Your task to perform on an android device: find which apps use the phone's location Image 0: 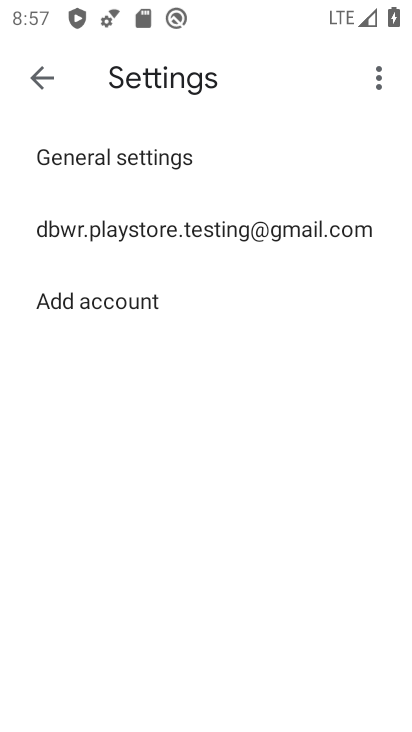
Step 0: press home button
Your task to perform on an android device: find which apps use the phone's location Image 1: 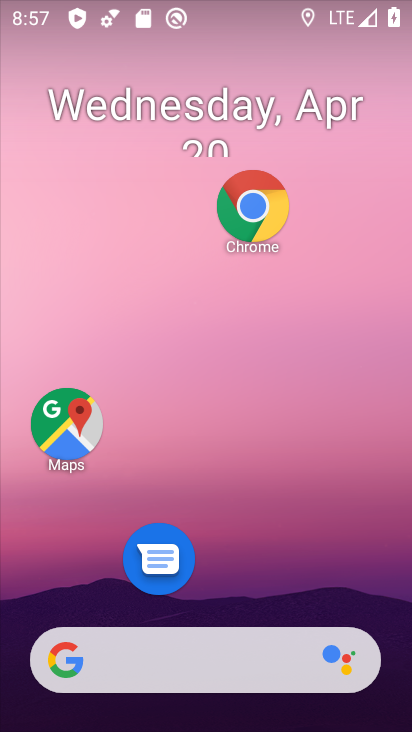
Step 1: drag from (253, 541) to (254, 215)
Your task to perform on an android device: find which apps use the phone's location Image 2: 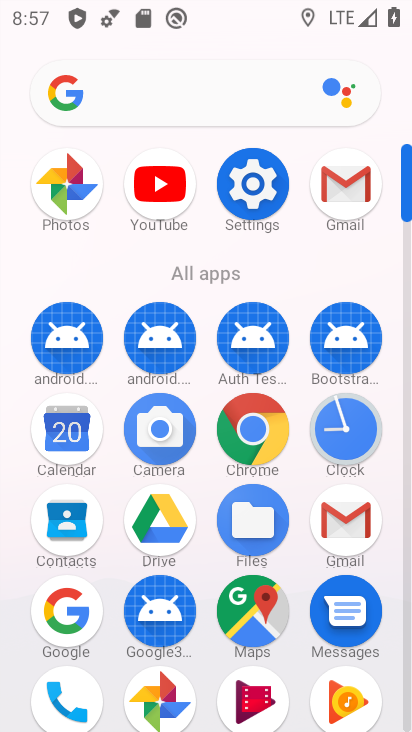
Step 2: click (239, 193)
Your task to perform on an android device: find which apps use the phone's location Image 3: 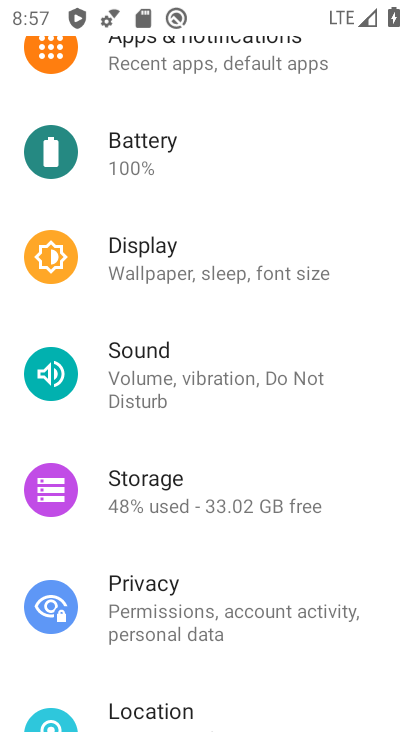
Step 3: click (172, 715)
Your task to perform on an android device: find which apps use the phone's location Image 4: 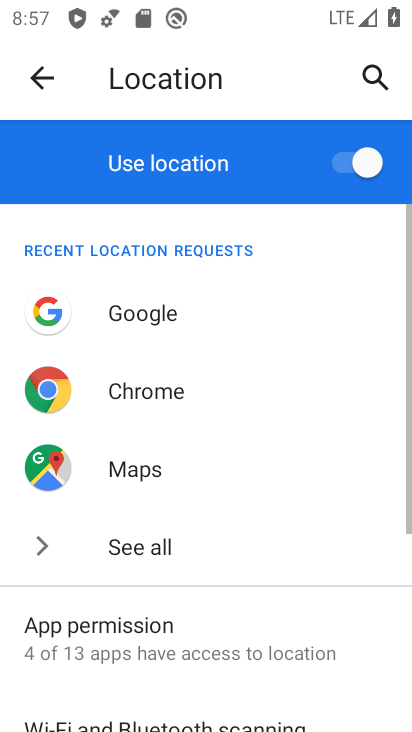
Step 4: click (173, 310)
Your task to perform on an android device: find which apps use the phone's location Image 5: 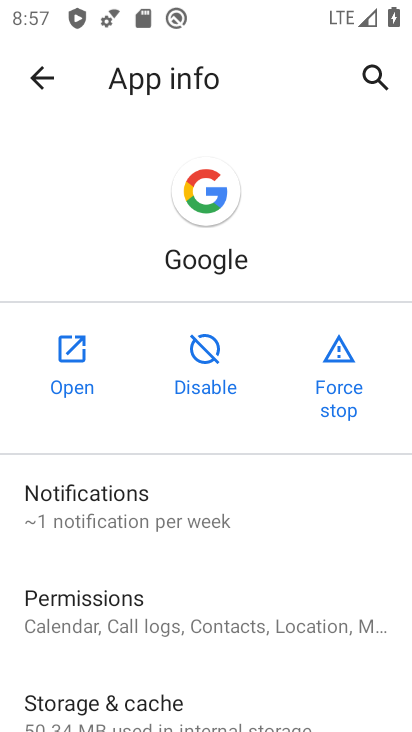
Step 5: click (122, 627)
Your task to perform on an android device: find which apps use the phone's location Image 6: 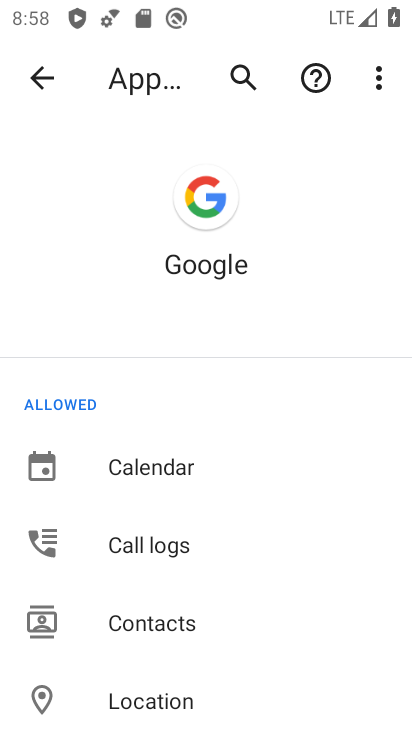
Step 6: click (136, 706)
Your task to perform on an android device: find which apps use the phone's location Image 7: 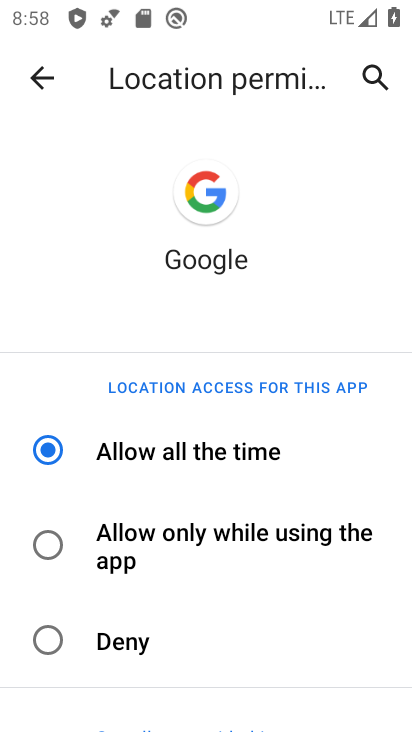
Step 7: task complete